Your task to perform on an android device: Go to calendar. Show me events next week Image 0: 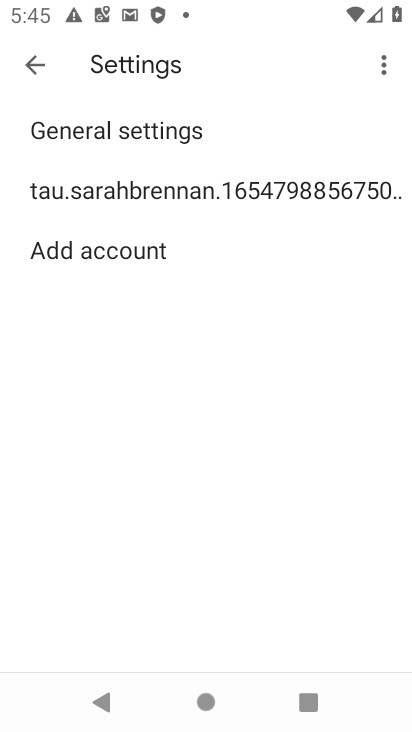
Step 0: press home button
Your task to perform on an android device: Go to calendar. Show me events next week Image 1: 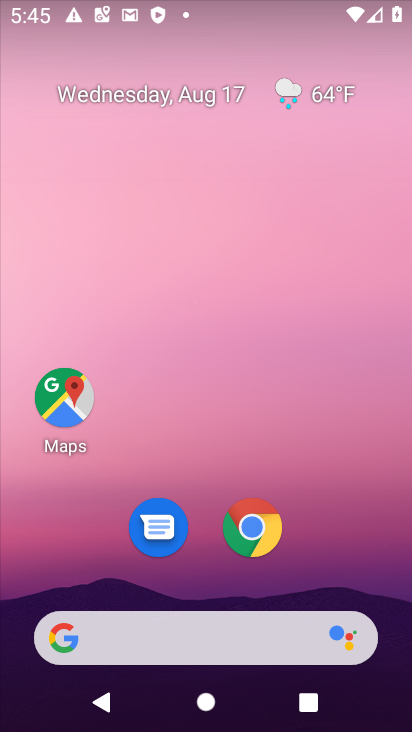
Step 1: drag from (159, 591) to (160, 186)
Your task to perform on an android device: Go to calendar. Show me events next week Image 2: 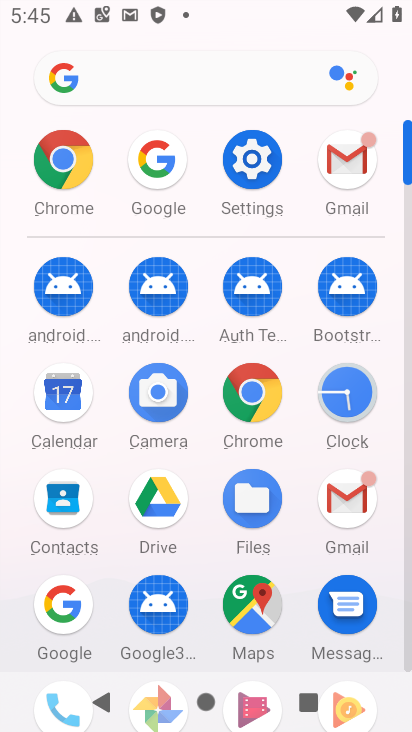
Step 2: click (51, 395)
Your task to perform on an android device: Go to calendar. Show me events next week Image 3: 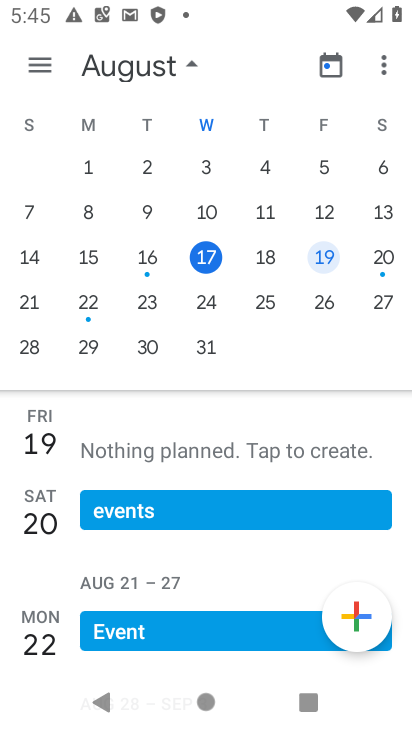
Step 3: click (82, 308)
Your task to perform on an android device: Go to calendar. Show me events next week Image 4: 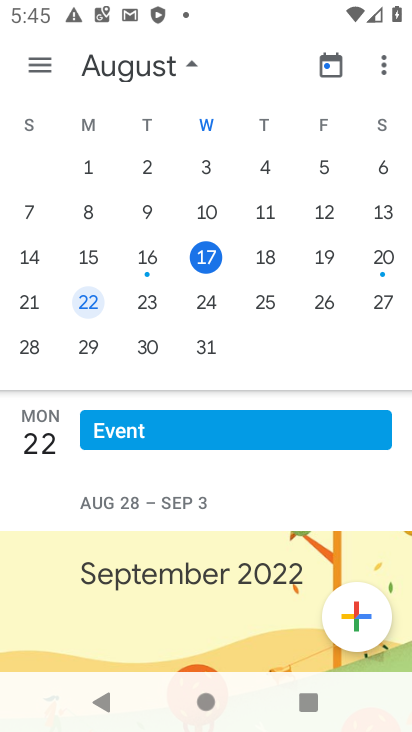
Step 4: click (140, 302)
Your task to perform on an android device: Go to calendar. Show me events next week Image 5: 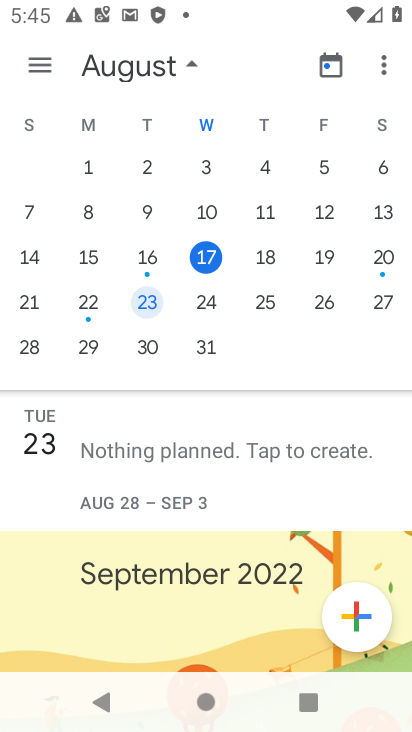
Step 5: click (200, 297)
Your task to perform on an android device: Go to calendar. Show me events next week Image 6: 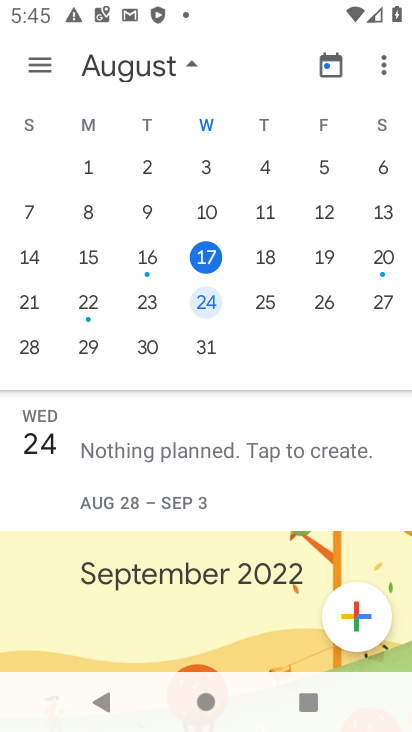
Step 6: click (266, 294)
Your task to perform on an android device: Go to calendar. Show me events next week Image 7: 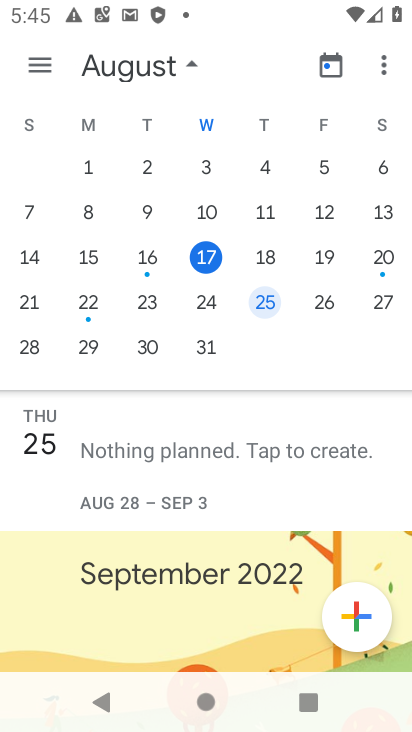
Step 7: click (315, 302)
Your task to perform on an android device: Go to calendar. Show me events next week Image 8: 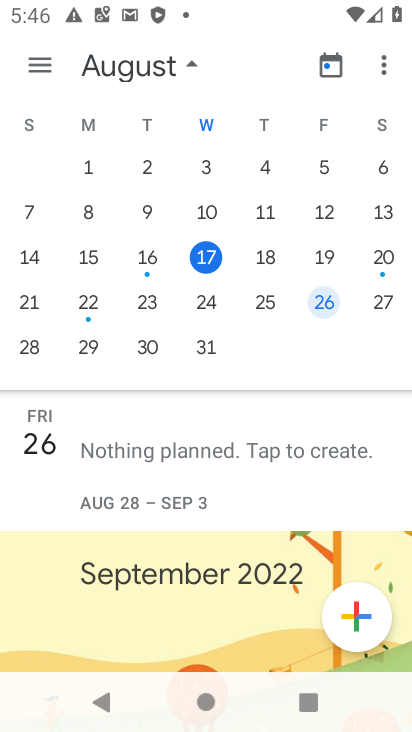
Step 8: task complete